Your task to perform on an android device: Search for pizza restaurants on Maps Image 0: 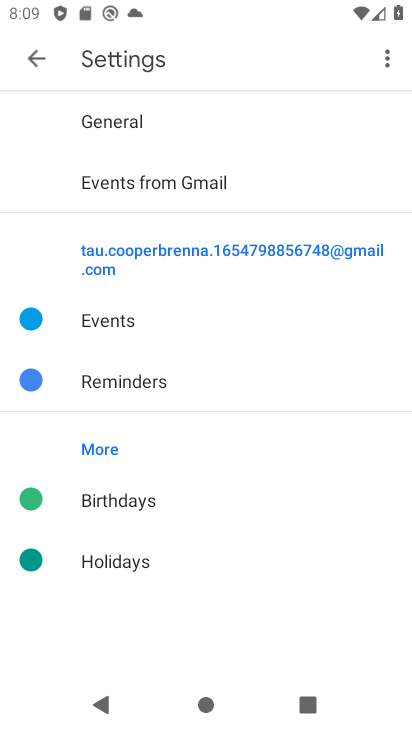
Step 0: press home button
Your task to perform on an android device: Search for pizza restaurants on Maps Image 1: 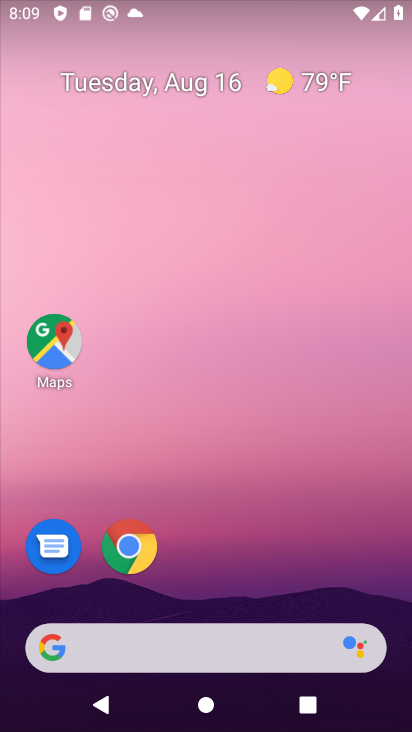
Step 1: drag from (198, 583) to (188, 75)
Your task to perform on an android device: Search for pizza restaurants on Maps Image 2: 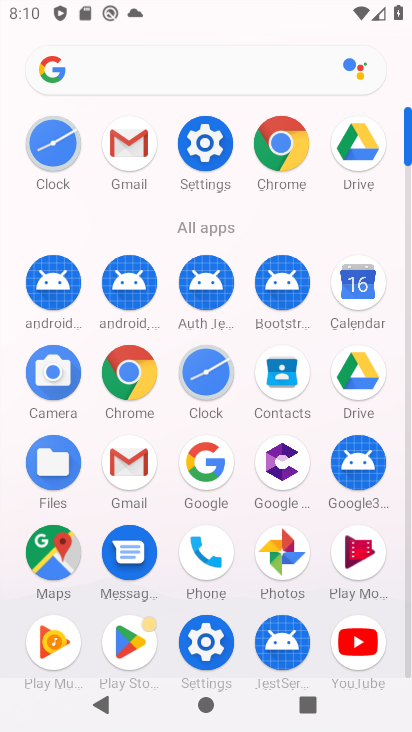
Step 2: click (63, 570)
Your task to perform on an android device: Search for pizza restaurants on Maps Image 3: 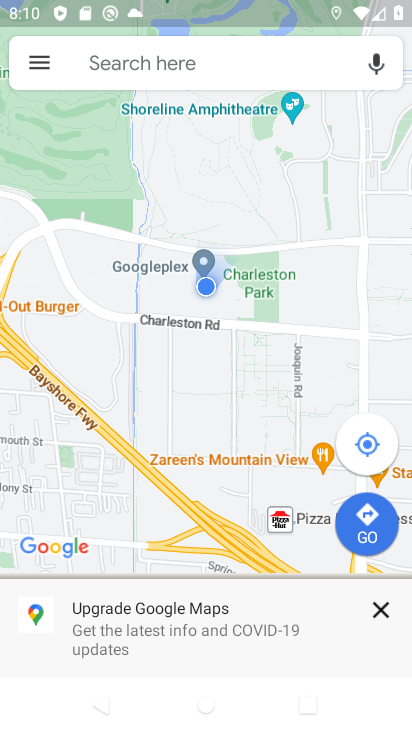
Step 3: click (145, 66)
Your task to perform on an android device: Search for pizza restaurants on Maps Image 4: 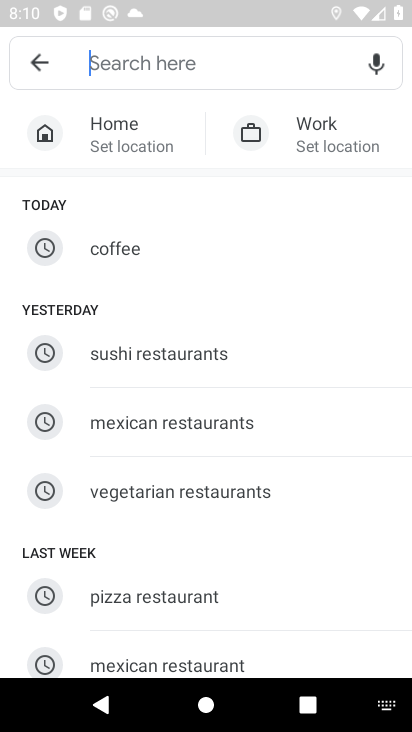
Step 4: type "pizza restaurants "
Your task to perform on an android device: Search for pizza restaurants on Maps Image 5: 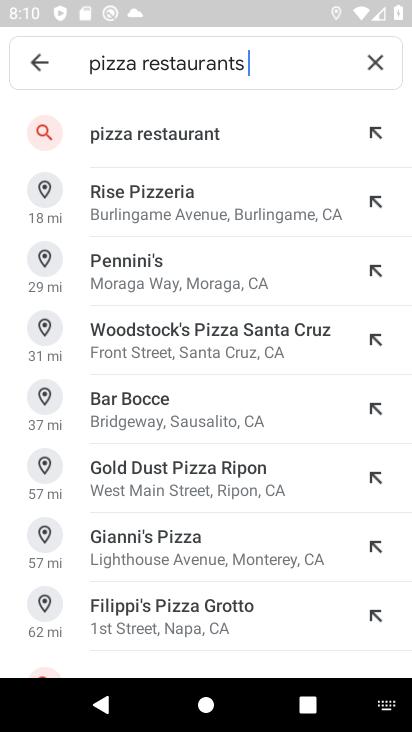
Step 5: click (215, 131)
Your task to perform on an android device: Search for pizza restaurants on Maps Image 6: 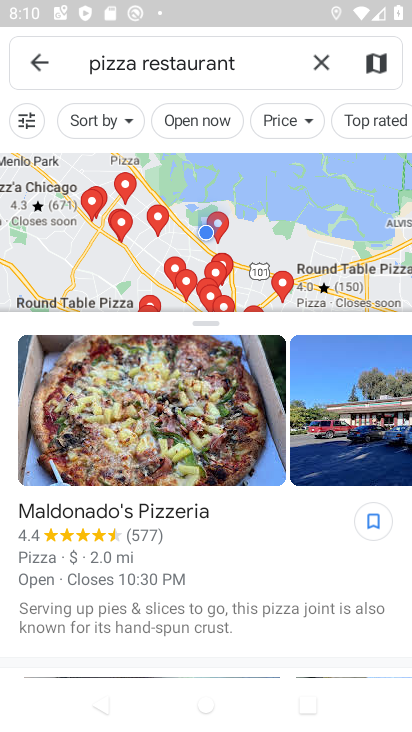
Step 6: task complete